Your task to perform on an android device: open the mobile data screen to see how much data has been used Image 0: 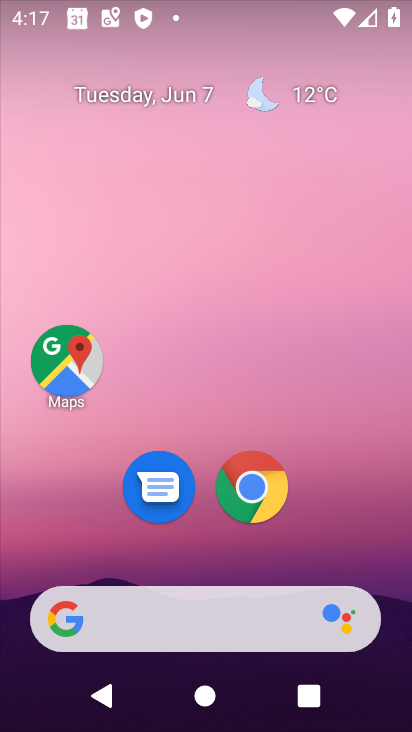
Step 0: drag from (172, 605) to (251, 30)
Your task to perform on an android device: open the mobile data screen to see how much data has been used Image 1: 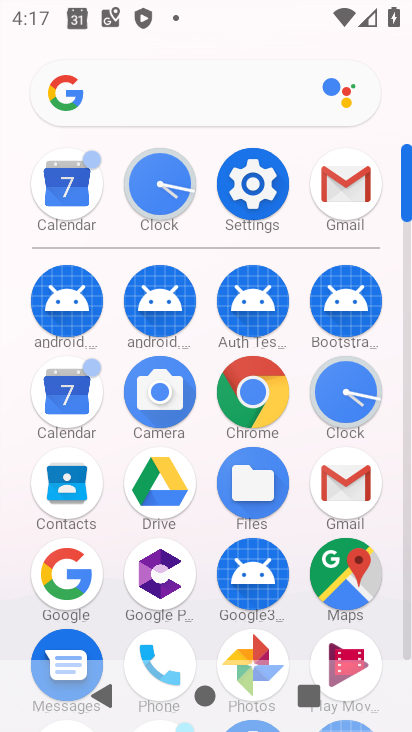
Step 1: click (252, 166)
Your task to perform on an android device: open the mobile data screen to see how much data has been used Image 2: 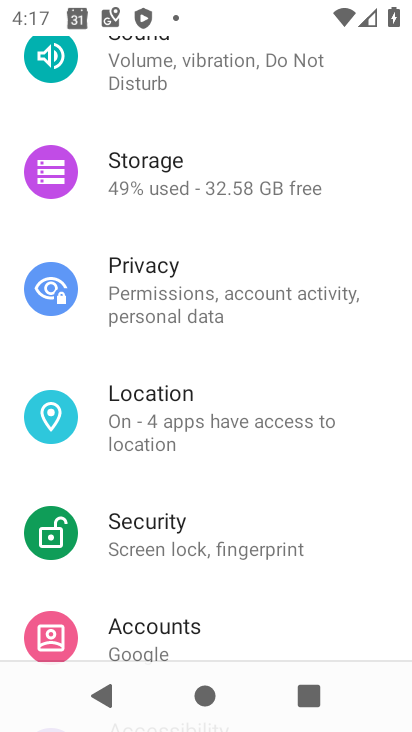
Step 2: drag from (226, 130) to (160, 595)
Your task to perform on an android device: open the mobile data screen to see how much data has been used Image 3: 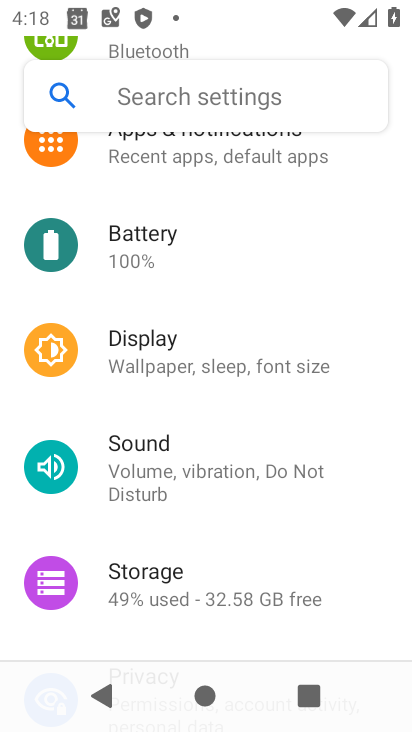
Step 3: drag from (190, 203) to (171, 608)
Your task to perform on an android device: open the mobile data screen to see how much data has been used Image 4: 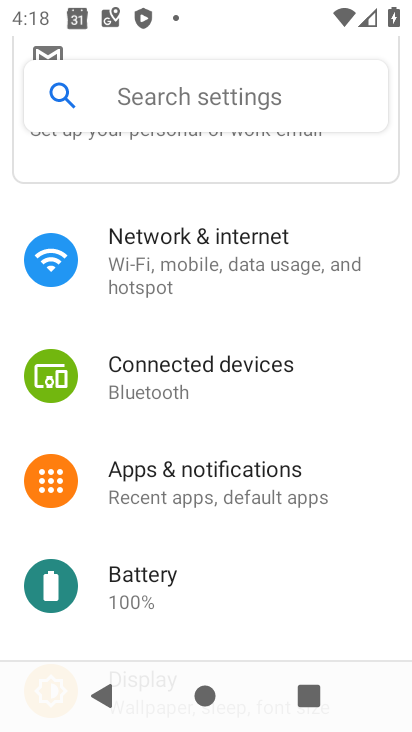
Step 4: click (222, 251)
Your task to perform on an android device: open the mobile data screen to see how much data has been used Image 5: 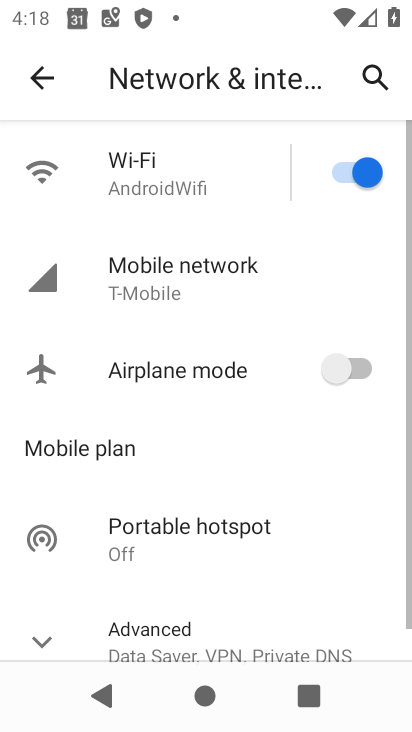
Step 5: click (173, 286)
Your task to perform on an android device: open the mobile data screen to see how much data has been used Image 6: 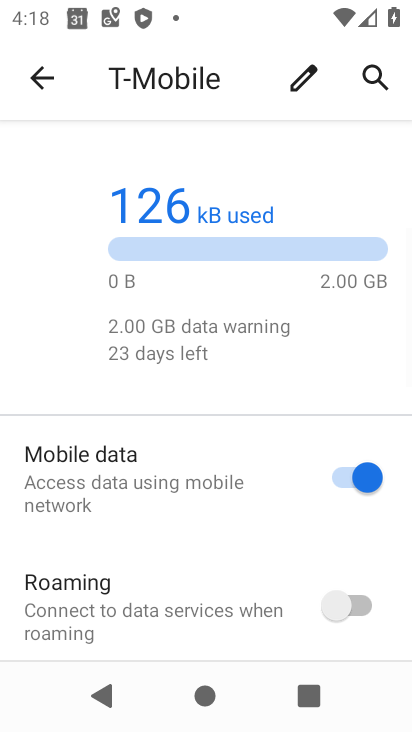
Step 6: drag from (148, 539) to (213, 165)
Your task to perform on an android device: open the mobile data screen to see how much data has been used Image 7: 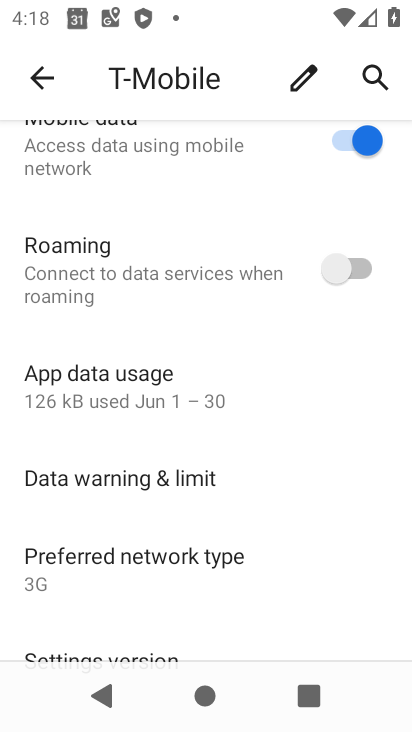
Step 7: click (111, 395)
Your task to perform on an android device: open the mobile data screen to see how much data has been used Image 8: 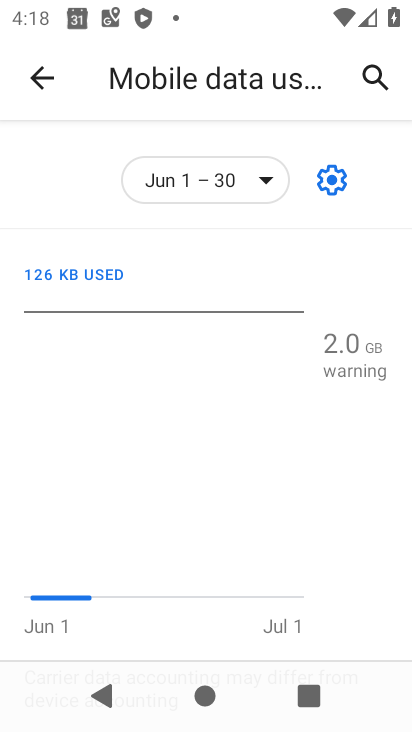
Step 8: task complete